Your task to perform on an android device: Go to calendar. Show me events next week Image 0: 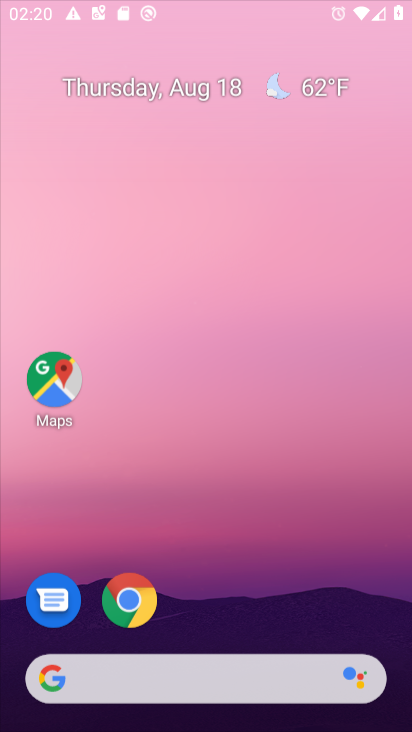
Step 0: press home button
Your task to perform on an android device: Go to calendar. Show me events next week Image 1: 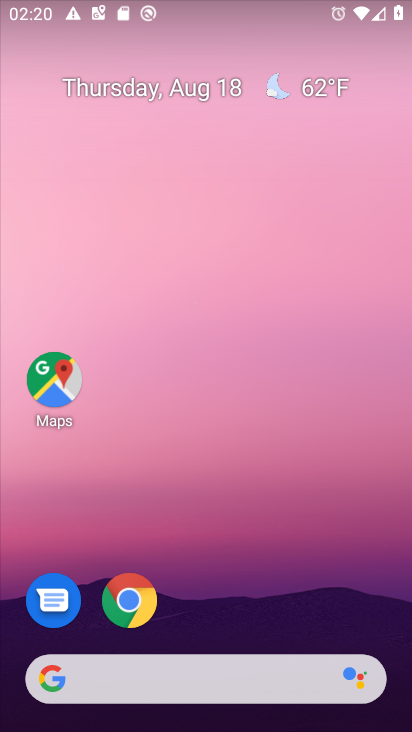
Step 1: press home button
Your task to perform on an android device: Go to calendar. Show me events next week Image 2: 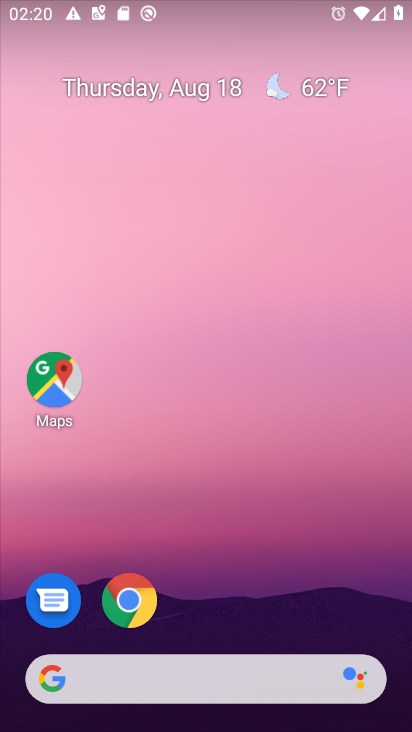
Step 2: drag from (262, 613) to (291, 82)
Your task to perform on an android device: Go to calendar. Show me events next week Image 3: 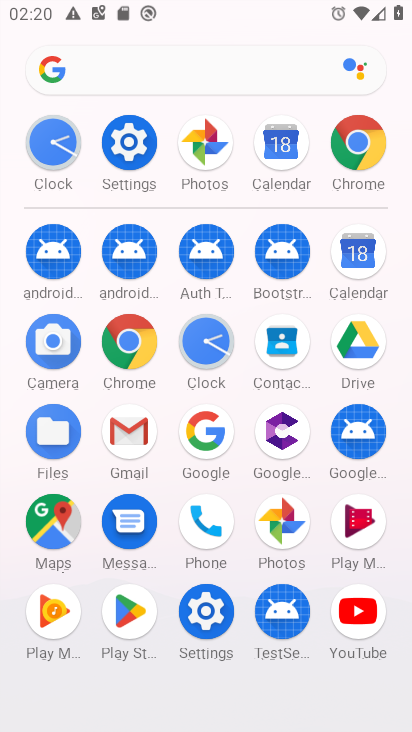
Step 3: click (264, 145)
Your task to perform on an android device: Go to calendar. Show me events next week Image 4: 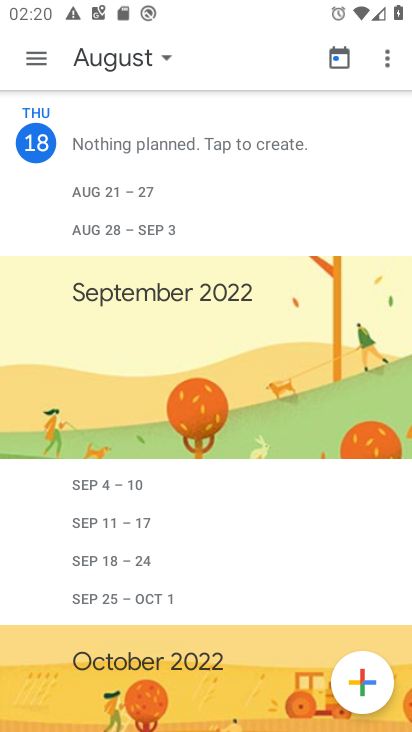
Step 4: click (41, 59)
Your task to perform on an android device: Go to calendar. Show me events next week Image 5: 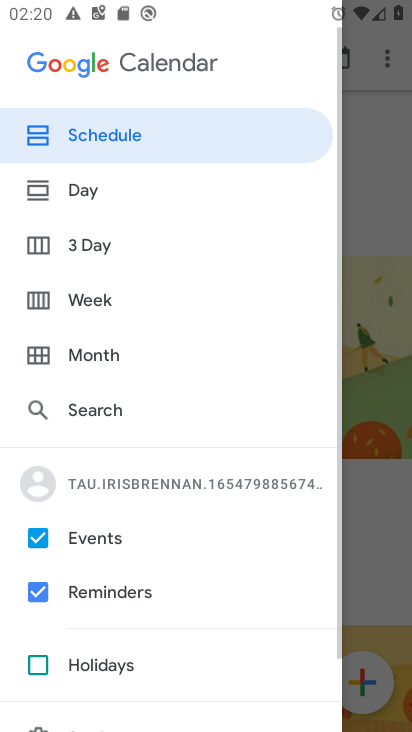
Step 5: click (96, 184)
Your task to perform on an android device: Go to calendar. Show me events next week Image 6: 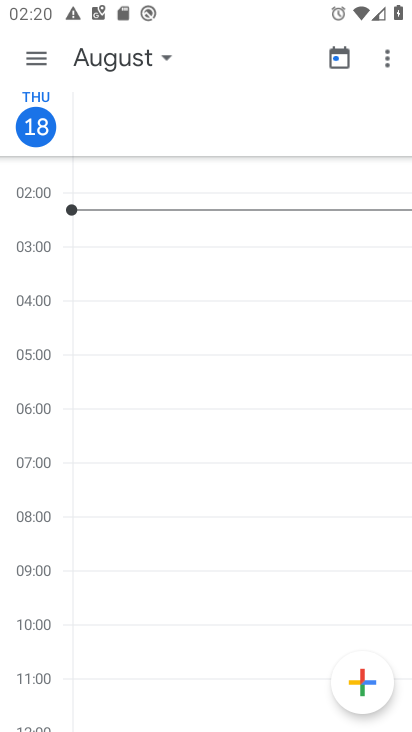
Step 6: click (43, 56)
Your task to perform on an android device: Go to calendar. Show me events next week Image 7: 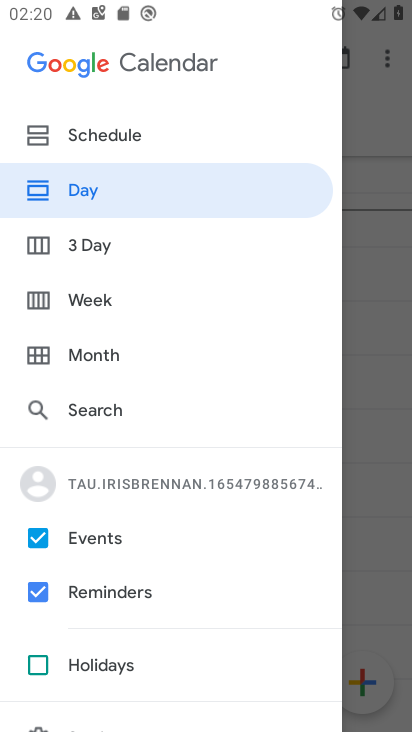
Step 7: click (92, 303)
Your task to perform on an android device: Go to calendar. Show me events next week Image 8: 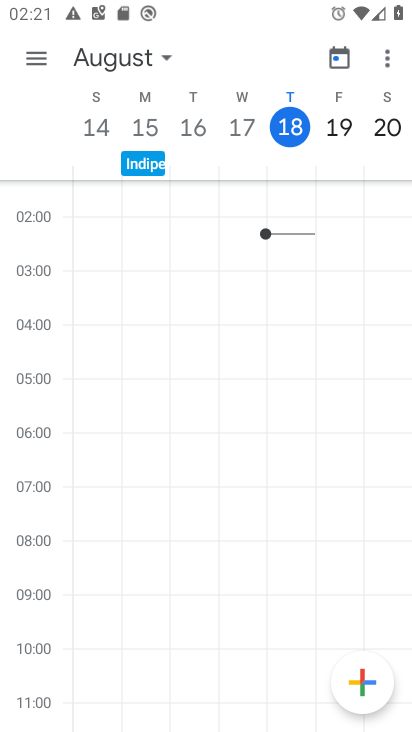
Step 8: task complete